Your task to perform on an android device: toggle data saver in the chrome app Image 0: 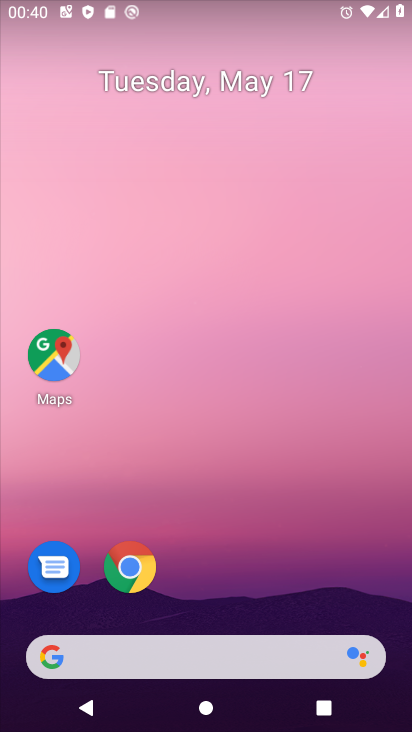
Step 0: click (135, 569)
Your task to perform on an android device: toggle data saver in the chrome app Image 1: 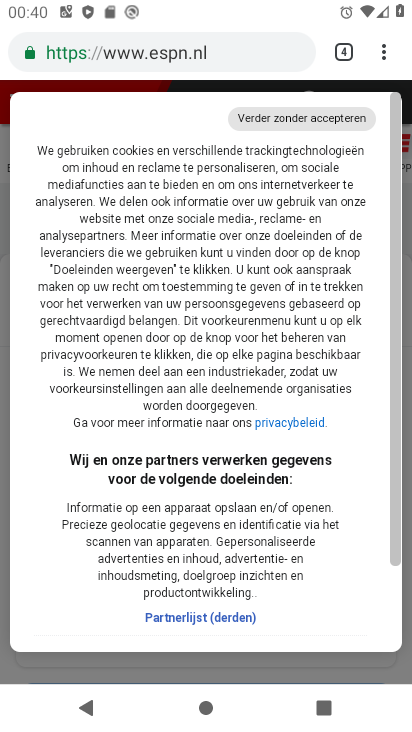
Step 1: click (385, 53)
Your task to perform on an android device: toggle data saver in the chrome app Image 2: 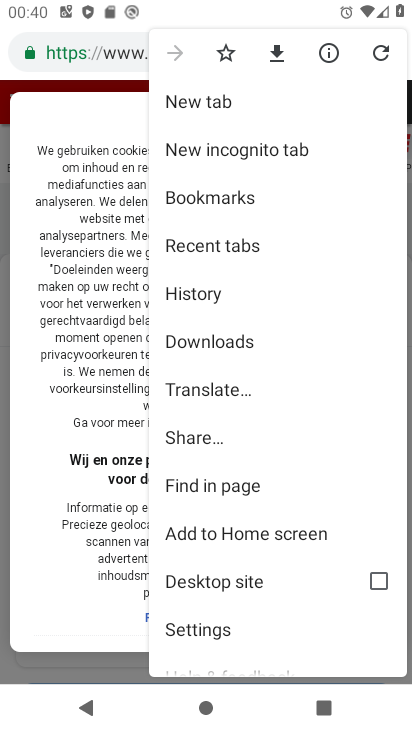
Step 2: click (220, 626)
Your task to perform on an android device: toggle data saver in the chrome app Image 3: 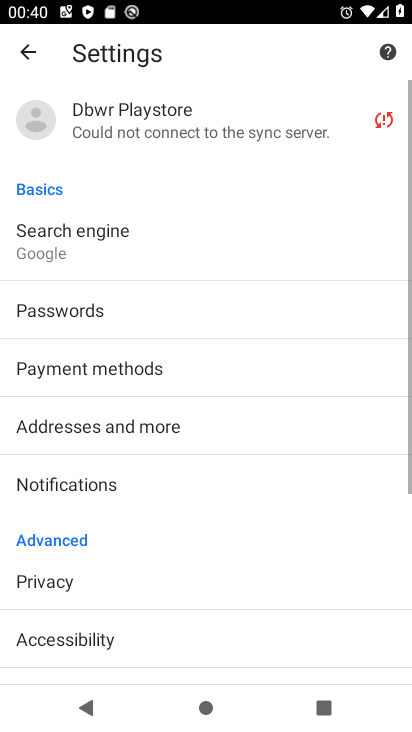
Step 3: drag from (247, 516) to (181, 139)
Your task to perform on an android device: toggle data saver in the chrome app Image 4: 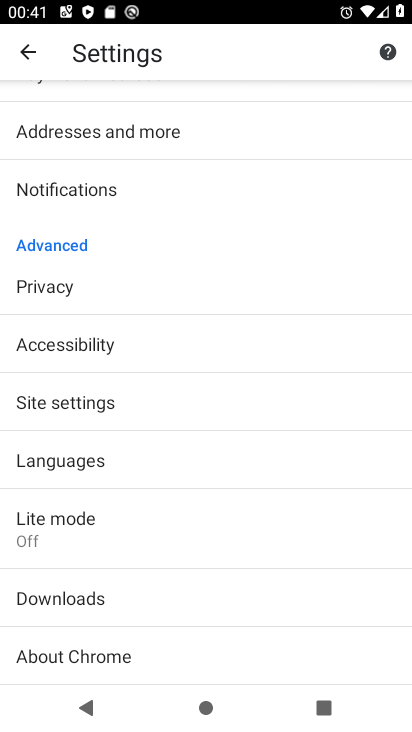
Step 4: drag from (193, 548) to (150, 262)
Your task to perform on an android device: toggle data saver in the chrome app Image 5: 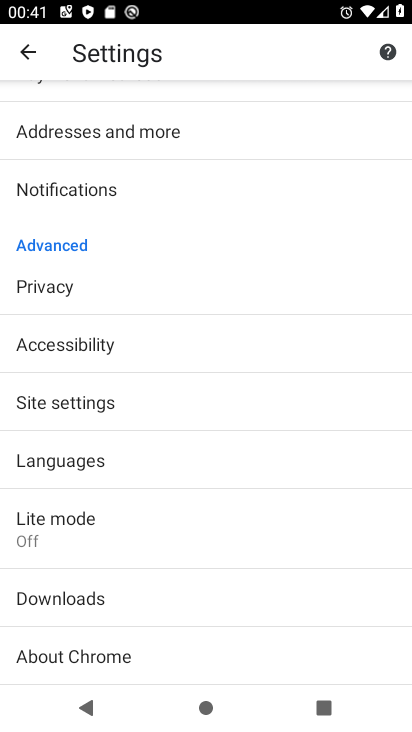
Step 5: click (53, 521)
Your task to perform on an android device: toggle data saver in the chrome app Image 6: 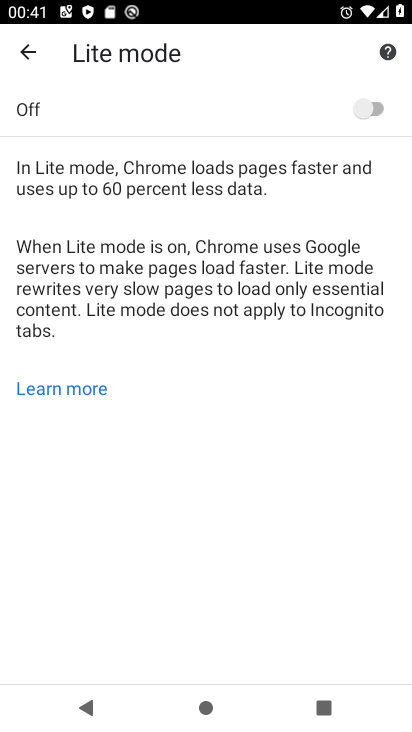
Step 6: click (356, 112)
Your task to perform on an android device: toggle data saver in the chrome app Image 7: 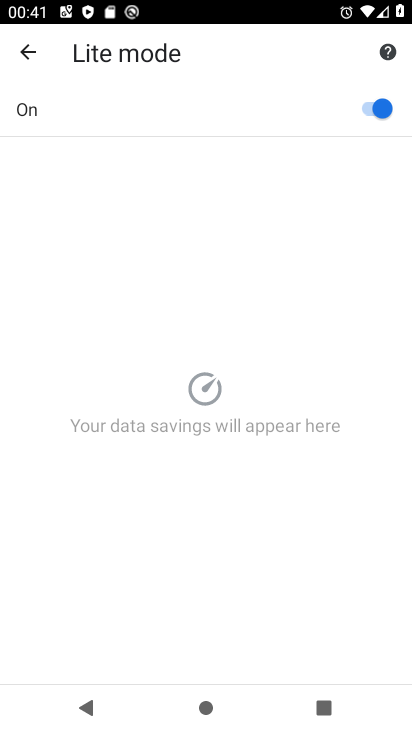
Step 7: task complete